Your task to perform on an android device: Open eBay Image 0: 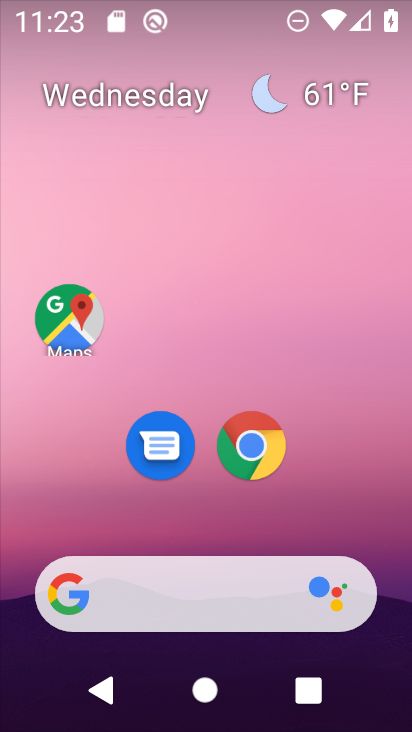
Step 0: drag from (330, 494) to (333, 211)
Your task to perform on an android device: Open eBay Image 1: 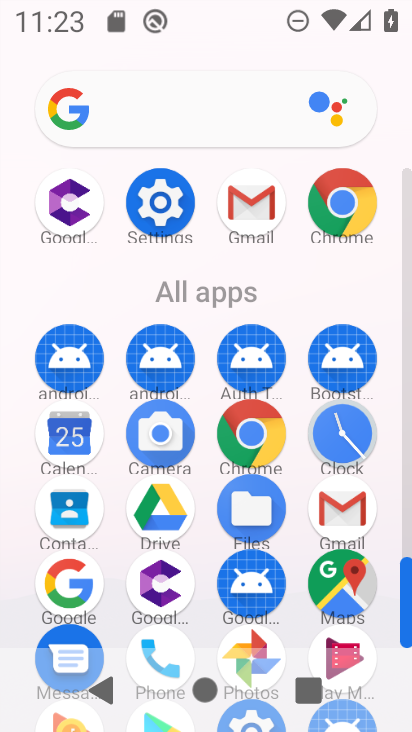
Step 1: click (344, 212)
Your task to perform on an android device: Open eBay Image 2: 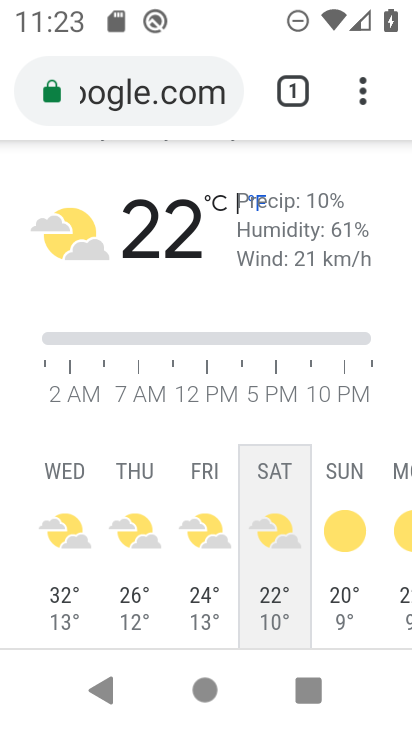
Step 2: click (159, 107)
Your task to perform on an android device: Open eBay Image 3: 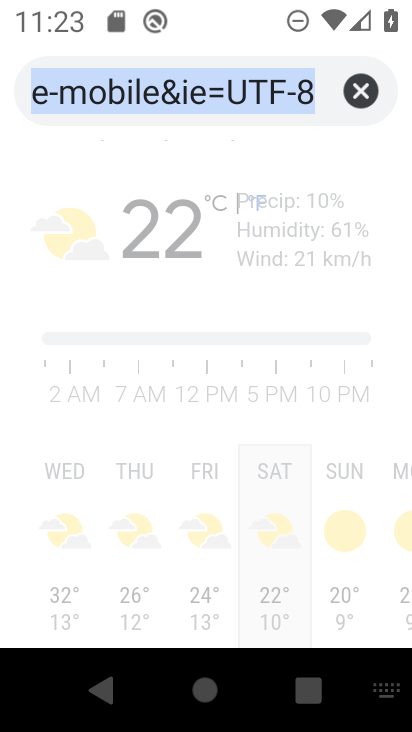
Step 3: click (366, 94)
Your task to perform on an android device: Open eBay Image 4: 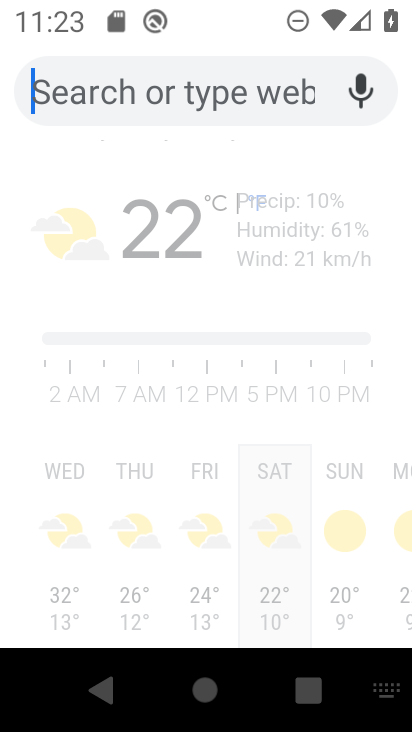
Step 4: type "ebay"
Your task to perform on an android device: Open eBay Image 5: 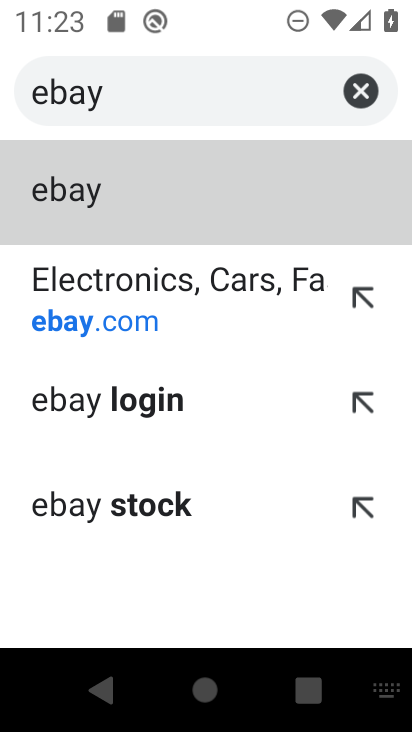
Step 5: click (230, 213)
Your task to perform on an android device: Open eBay Image 6: 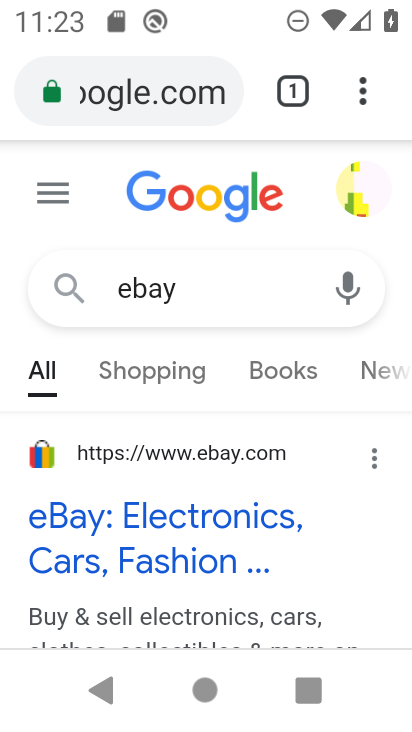
Step 6: click (215, 550)
Your task to perform on an android device: Open eBay Image 7: 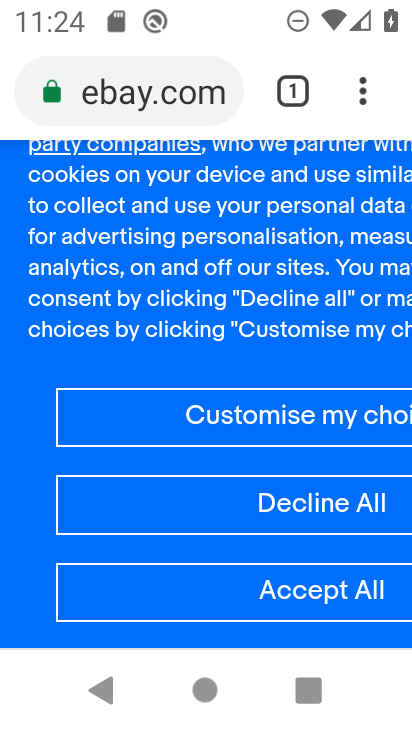
Step 7: task complete